Your task to perform on an android device: toggle improve location accuracy Image 0: 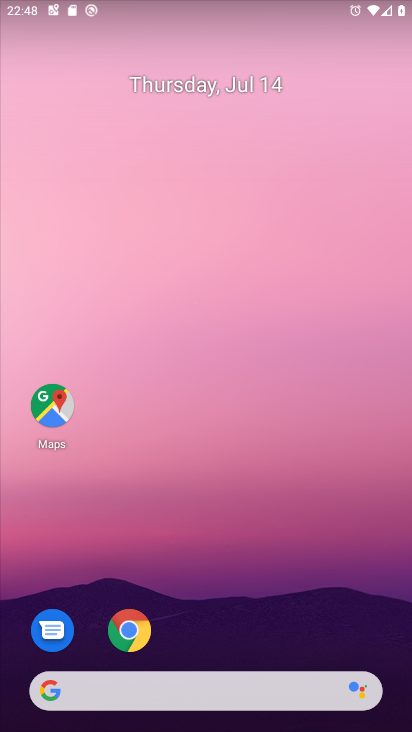
Step 0: drag from (223, 494) to (298, 170)
Your task to perform on an android device: toggle improve location accuracy Image 1: 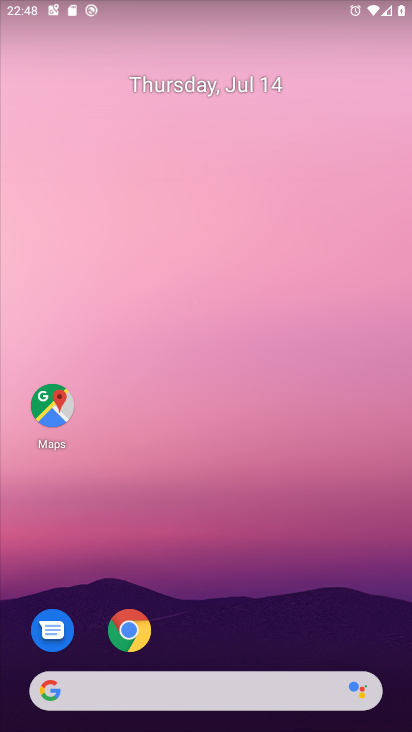
Step 1: drag from (239, 670) to (393, 9)
Your task to perform on an android device: toggle improve location accuracy Image 2: 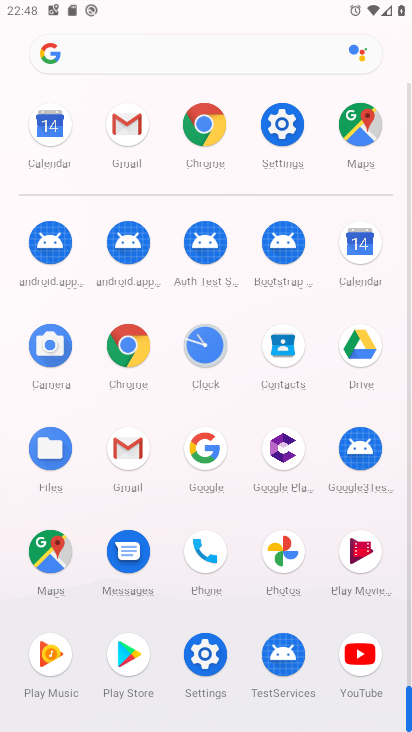
Step 2: click (215, 647)
Your task to perform on an android device: toggle improve location accuracy Image 3: 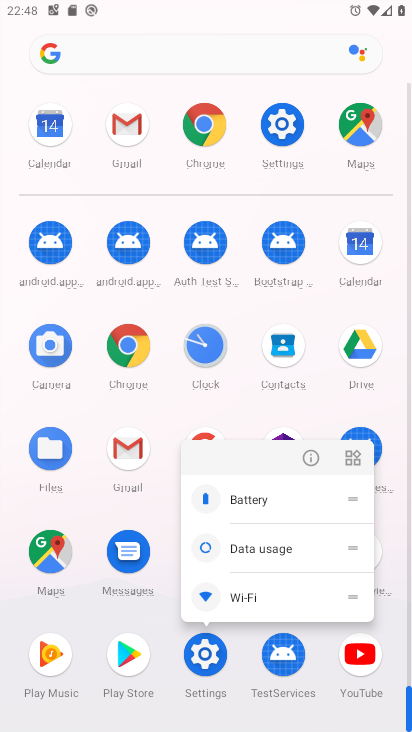
Step 3: click (309, 446)
Your task to perform on an android device: toggle improve location accuracy Image 4: 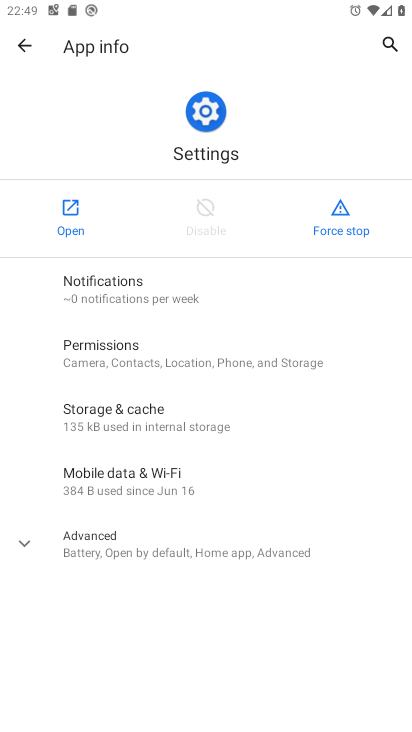
Step 4: click (80, 199)
Your task to perform on an android device: toggle improve location accuracy Image 5: 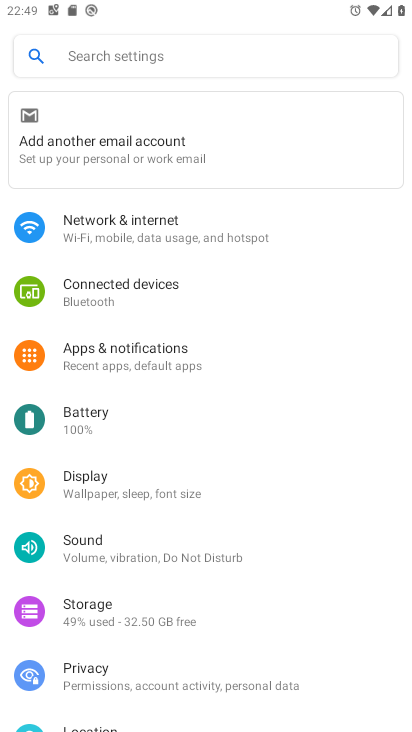
Step 5: drag from (145, 651) to (292, 154)
Your task to perform on an android device: toggle improve location accuracy Image 6: 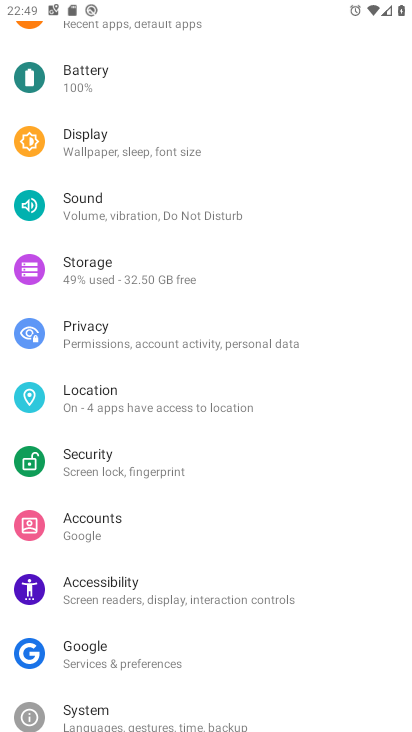
Step 6: click (136, 393)
Your task to perform on an android device: toggle improve location accuracy Image 7: 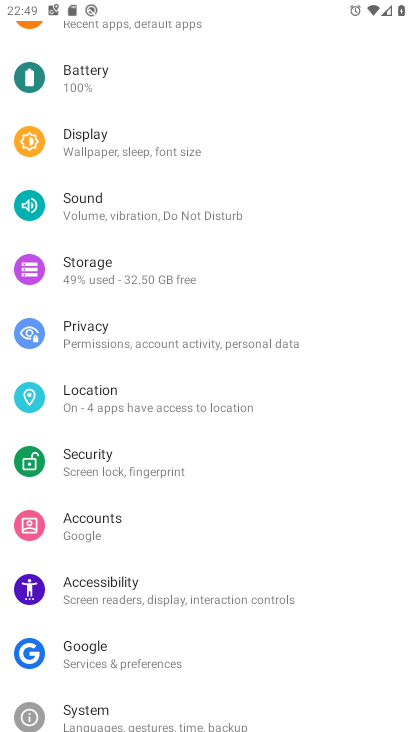
Step 7: click (136, 393)
Your task to perform on an android device: toggle improve location accuracy Image 8: 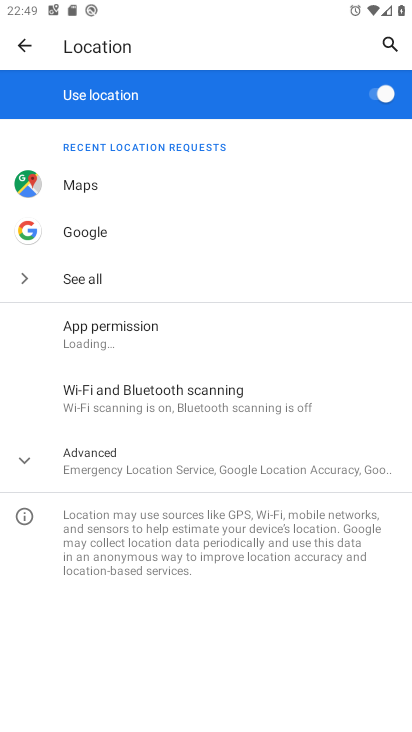
Step 8: click (160, 466)
Your task to perform on an android device: toggle improve location accuracy Image 9: 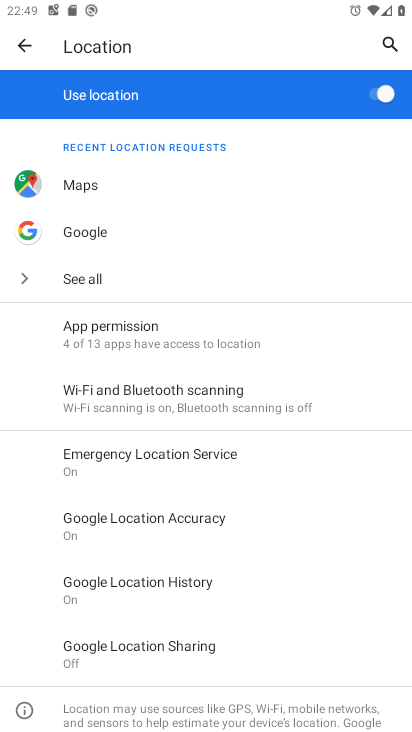
Step 9: click (209, 506)
Your task to perform on an android device: toggle improve location accuracy Image 10: 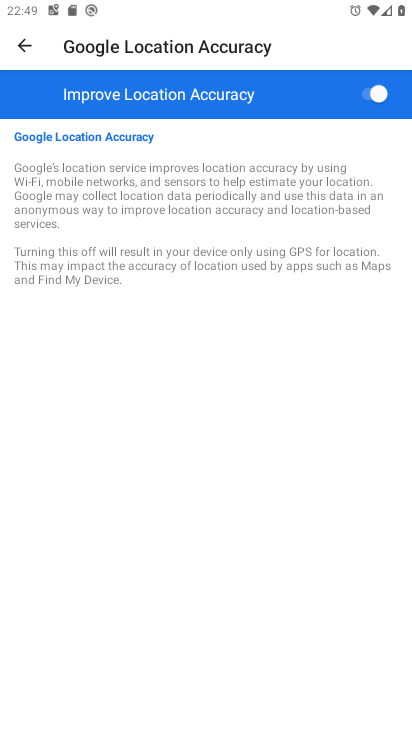
Step 10: click (376, 94)
Your task to perform on an android device: toggle improve location accuracy Image 11: 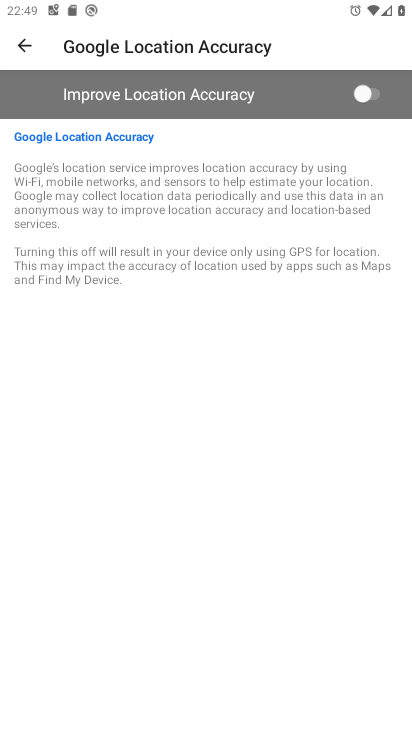
Step 11: task complete